Your task to perform on an android device: Open maps Image 0: 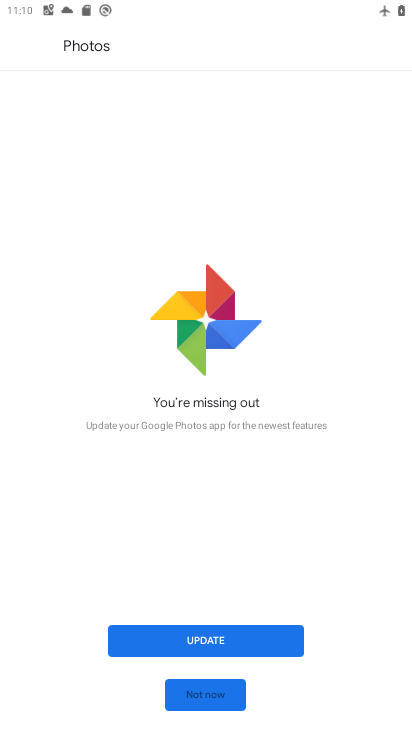
Step 0: press home button
Your task to perform on an android device: Open maps Image 1: 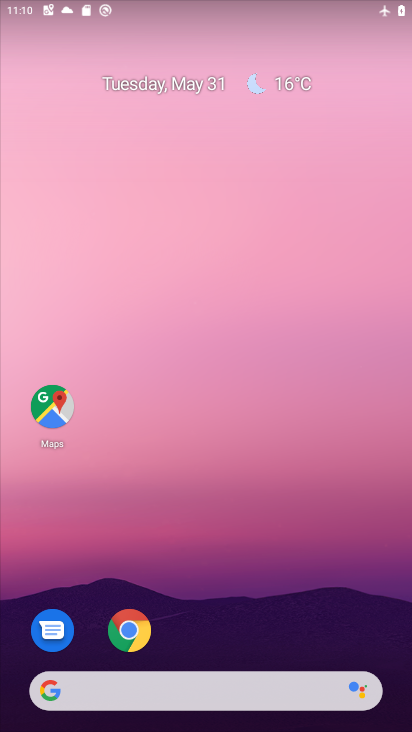
Step 1: drag from (255, 571) to (279, 124)
Your task to perform on an android device: Open maps Image 2: 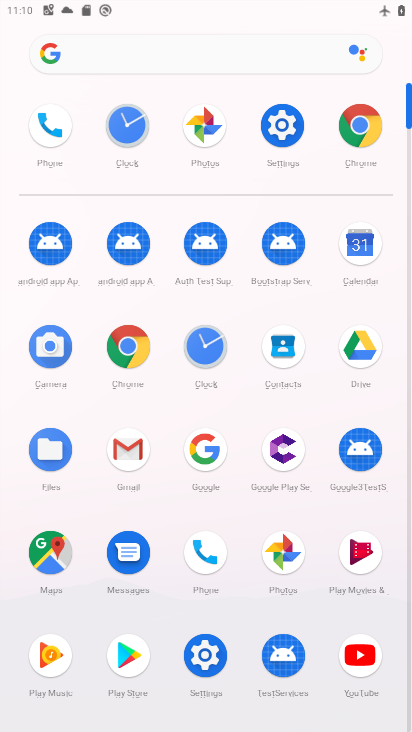
Step 2: click (44, 550)
Your task to perform on an android device: Open maps Image 3: 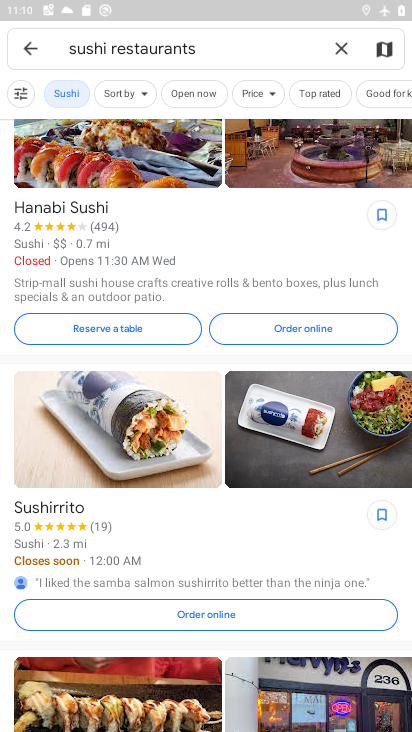
Step 3: task complete